Your task to perform on an android device: Search for pizza restaurants on Maps Image 0: 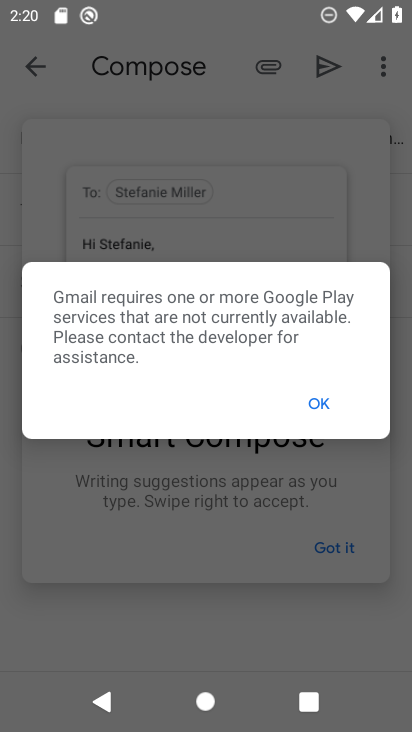
Step 0: press home button
Your task to perform on an android device: Search for pizza restaurants on Maps Image 1: 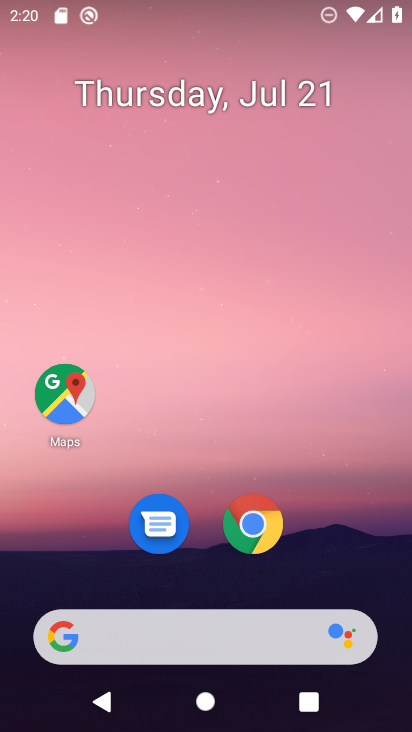
Step 1: click (74, 395)
Your task to perform on an android device: Search for pizza restaurants on Maps Image 2: 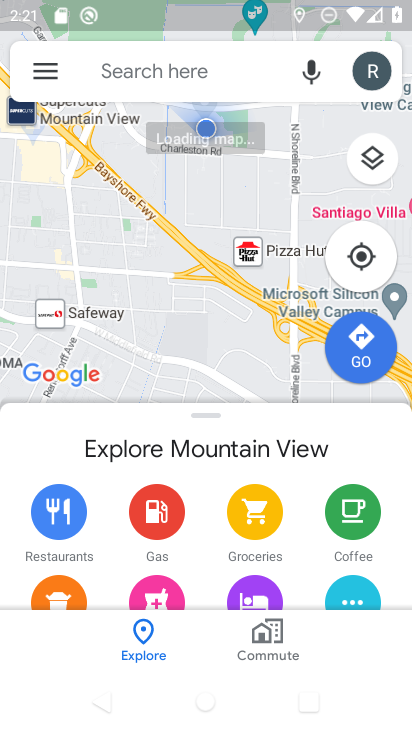
Step 2: click (183, 75)
Your task to perform on an android device: Search for pizza restaurants on Maps Image 3: 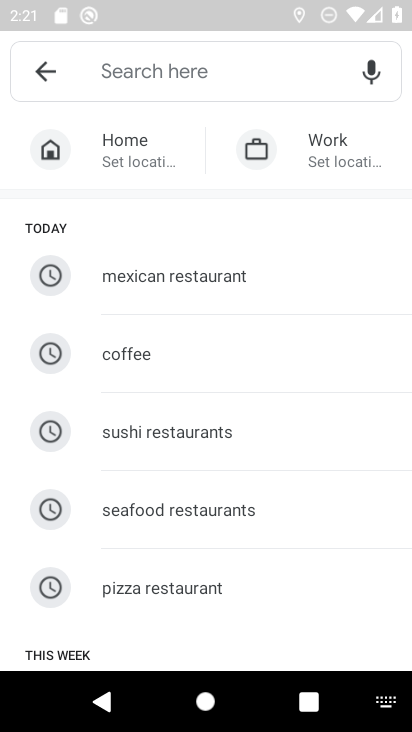
Step 3: click (179, 597)
Your task to perform on an android device: Search for pizza restaurants on Maps Image 4: 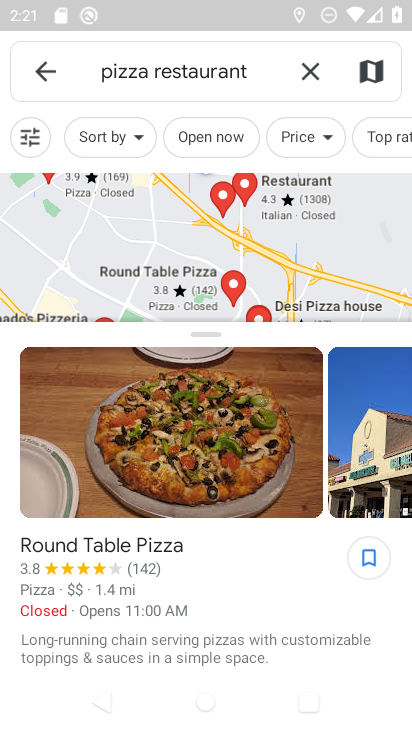
Step 4: task complete